Your task to perform on an android device: Check the news Image 0: 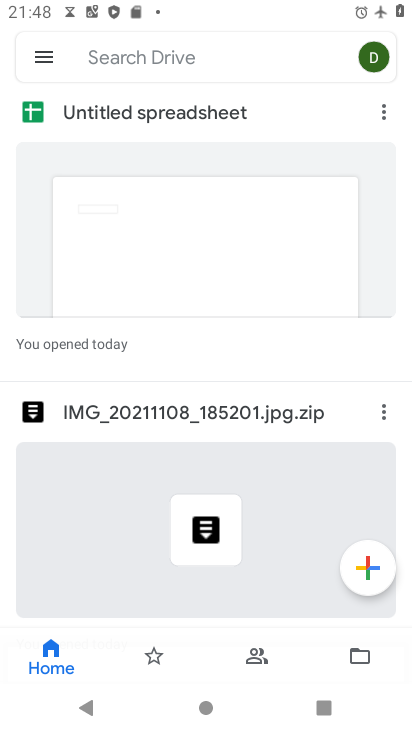
Step 0: press home button
Your task to perform on an android device: Check the news Image 1: 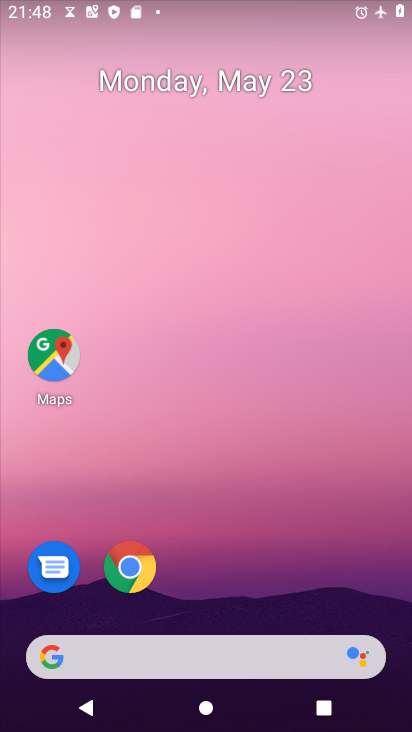
Step 1: drag from (233, 495) to (213, 225)
Your task to perform on an android device: Check the news Image 2: 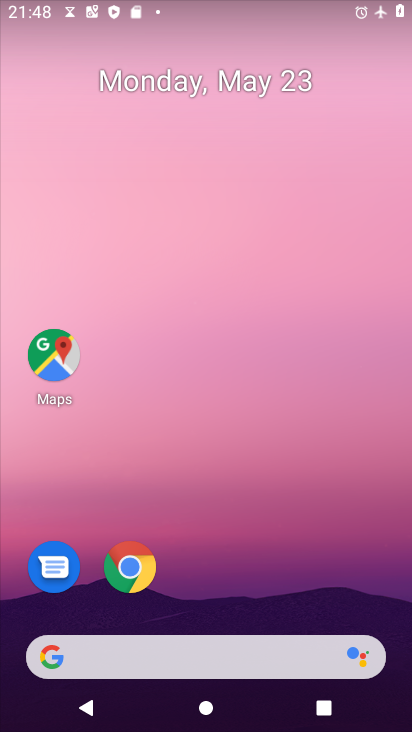
Step 2: drag from (276, 624) to (255, 243)
Your task to perform on an android device: Check the news Image 3: 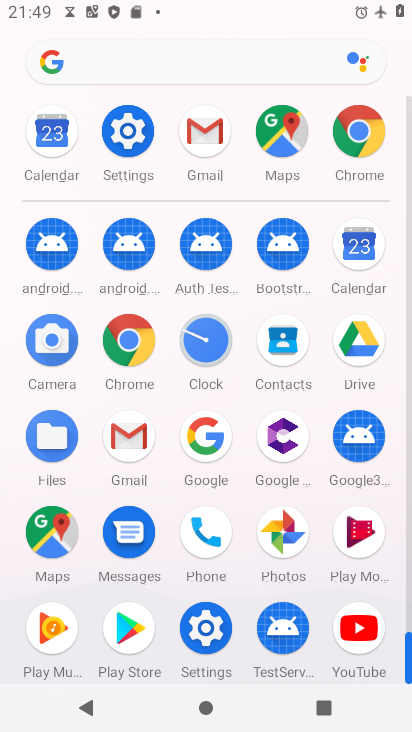
Step 3: click (118, 343)
Your task to perform on an android device: Check the news Image 4: 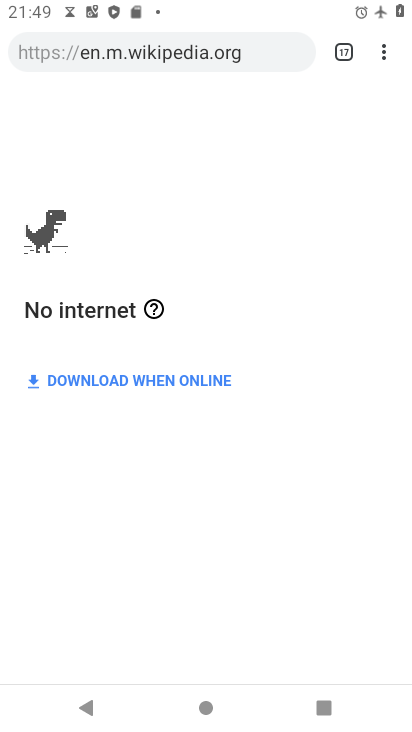
Step 4: click (374, 49)
Your task to perform on an android device: Check the news Image 5: 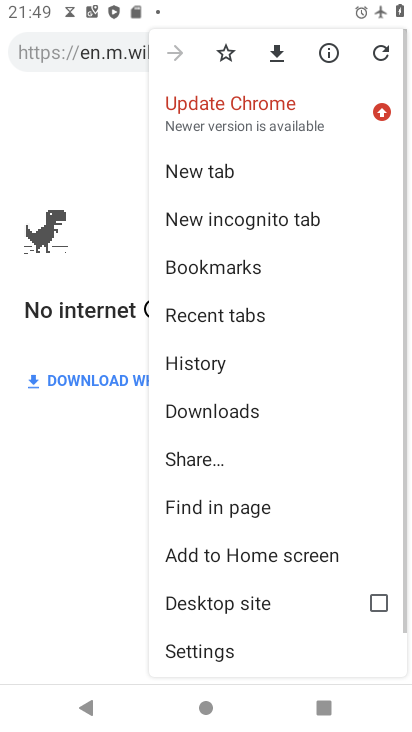
Step 5: click (221, 165)
Your task to perform on an android device: Check the news Image 6: 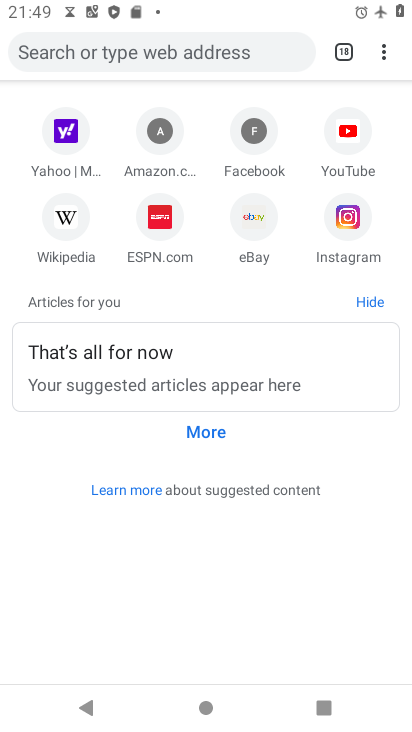
Step 6: click (168, 46)
Your task to perform on an android device: Check the news Image 7: 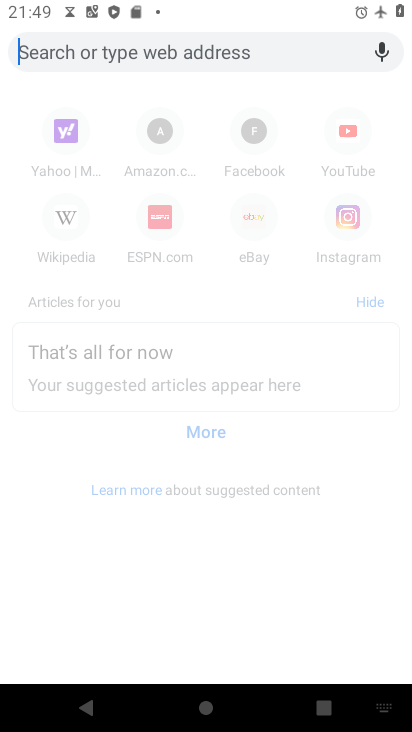
Step 7: type "Check the news"
Your task to perform on an android device: Check the news Image 8: 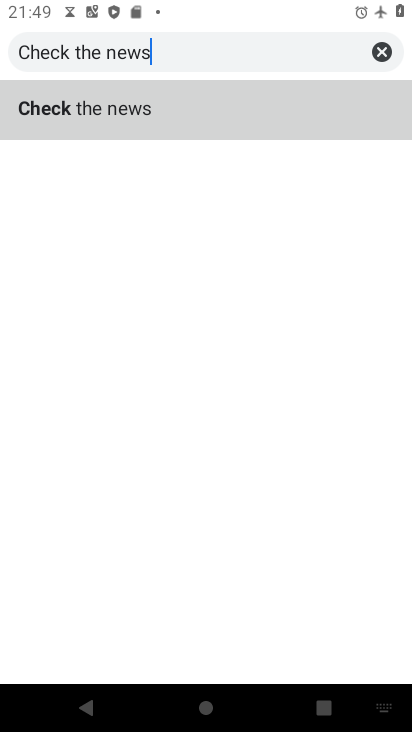
Step 8: click (185, 99)
Your task to perform on an android device: Check the news Image 9: 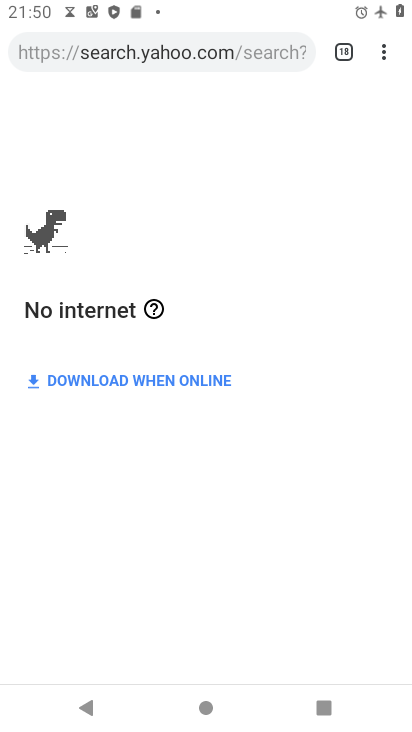
Step 9: task complete